Your task to perform on an android device: snooze an email in the gmail app Image 0: 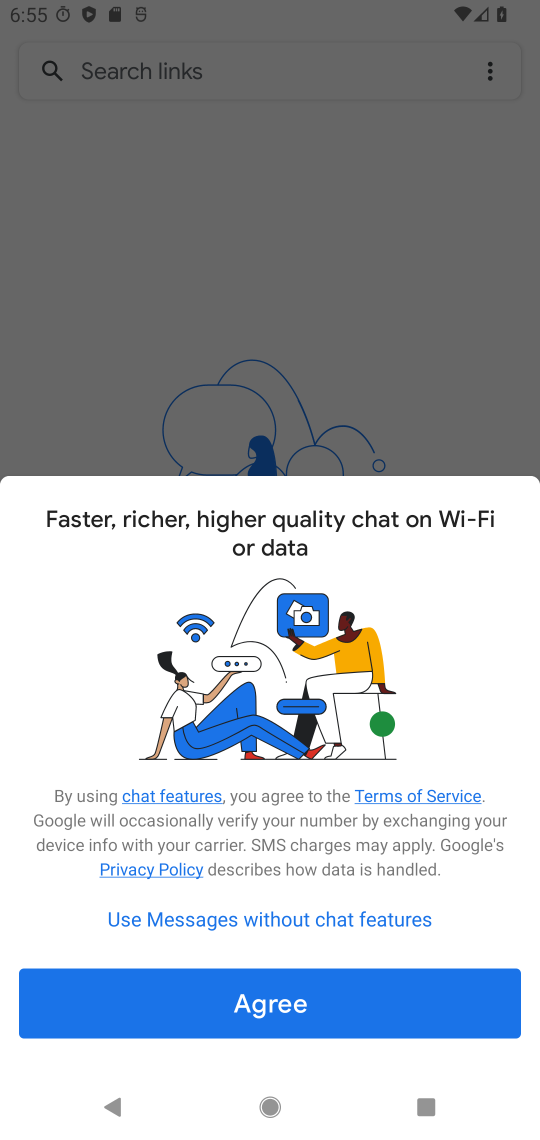
Step 0: press home button
Your task to perform on an android device: snooze an email in the gmail app Image 1: 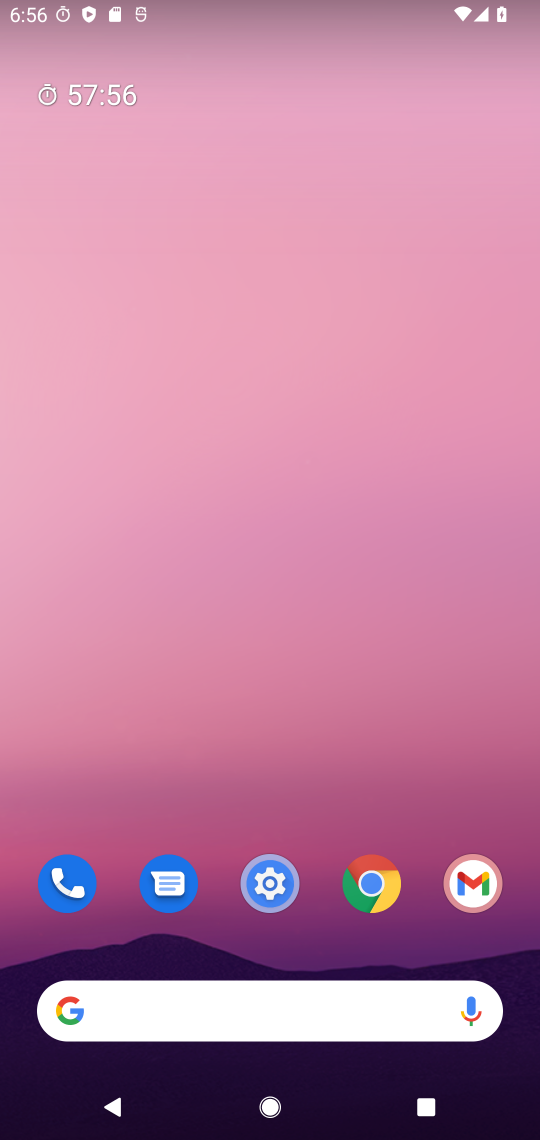
Step 1: drag from (310, 790) to (320, 98)
Your task to perform on an android device: snooze an email in the gmail app Image 2: 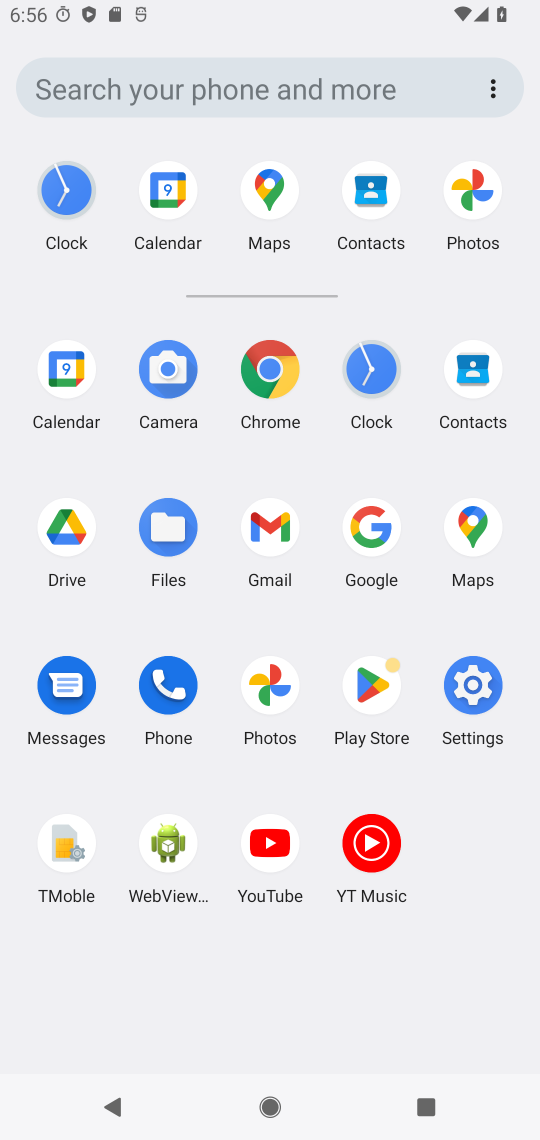
Step 2: click (279, 548)
Your task to perform on an android device: snooze an email in the gmail app Image 3: 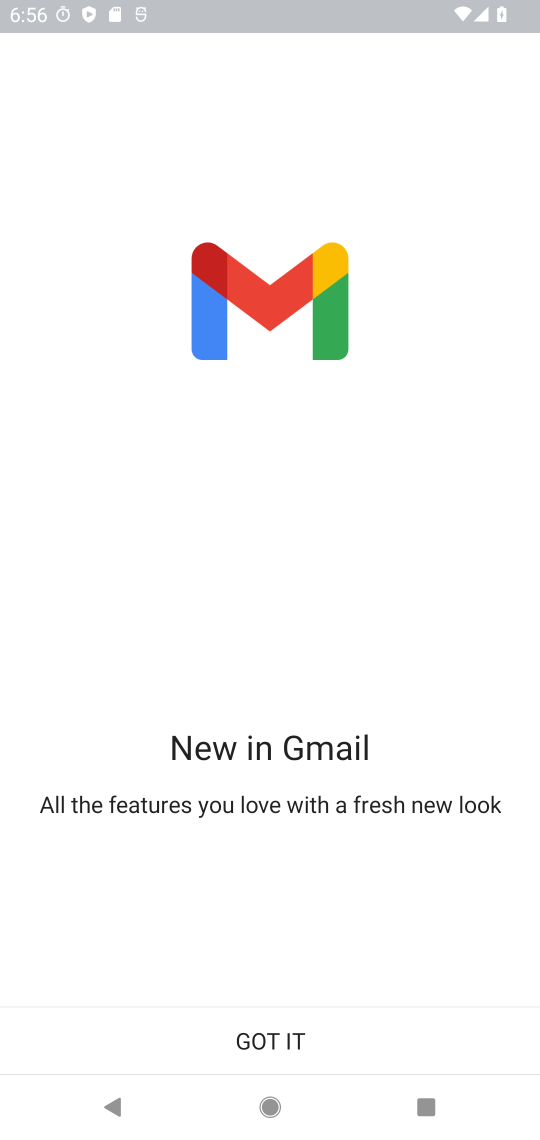
Step 3: click (260, 1048)
Your task to perform on an android device: snooze an email in the gmail app Image 4: 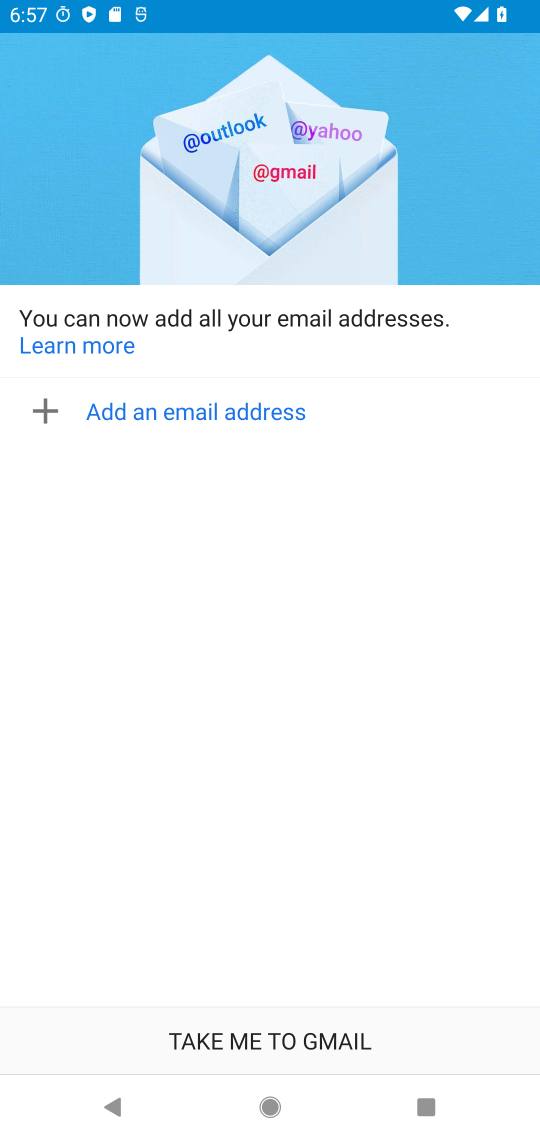
Step 4: task complete